Your task to perform on an android device: What is the recent news? Image 0: 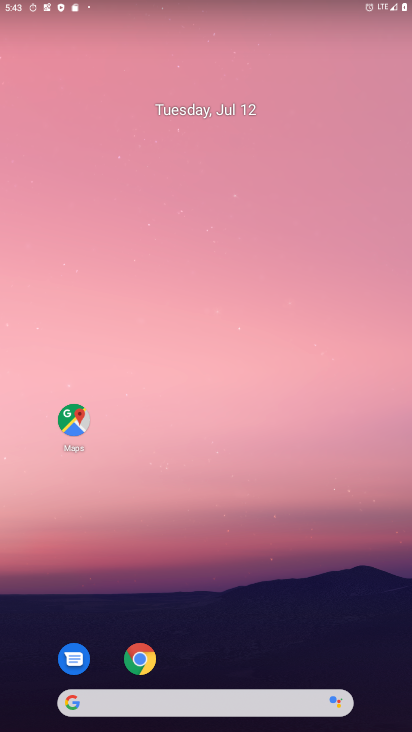
Step 0: drag from (179, 544) to (199, 47)
Your task to perform on an android device: What is the recent news? Image 1: 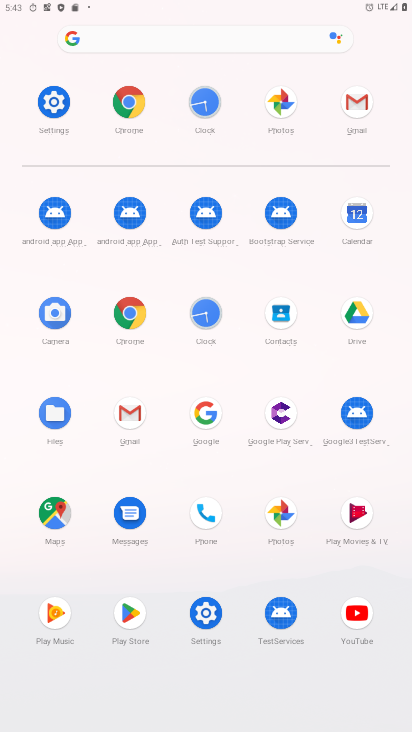
Step 1: click (131, 115)
Your task to perform on an android device: What is the recent news? Image 2: 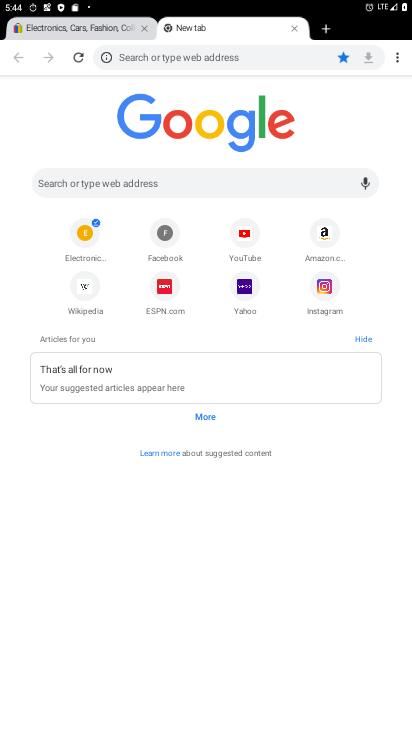
Step 2: click (274, 179)
Your task to perform on an android device: What is the recent news? Image 3: 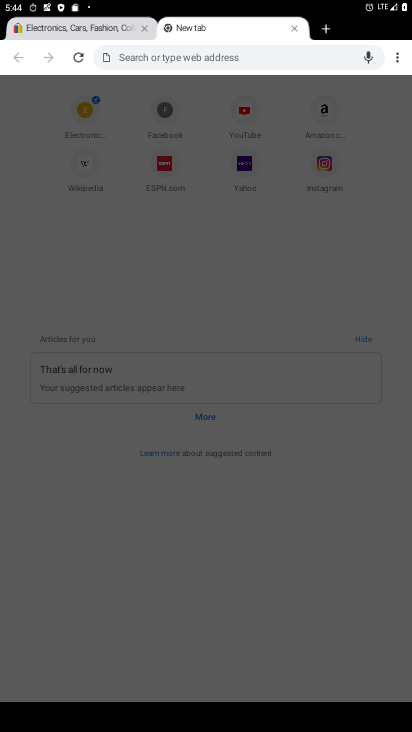
Step 3: type "recent news"
Your task to perform on an android device: What is the recent news? Image 4: 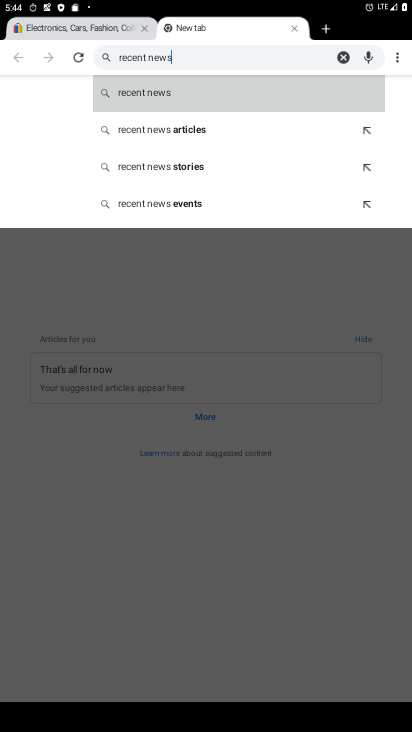
Step 4: click (154, 94)
Your task to perform on an android device: What is the recent news? Image 5: 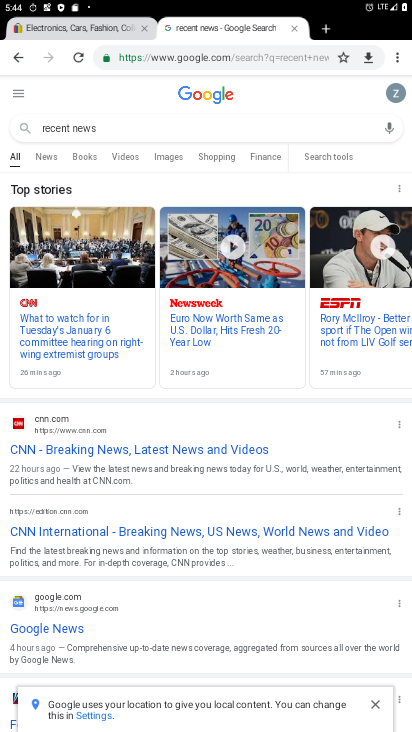
Step 5: task complete